Your task to perform on an android device: turn pop-ups on in chrome Image 0: 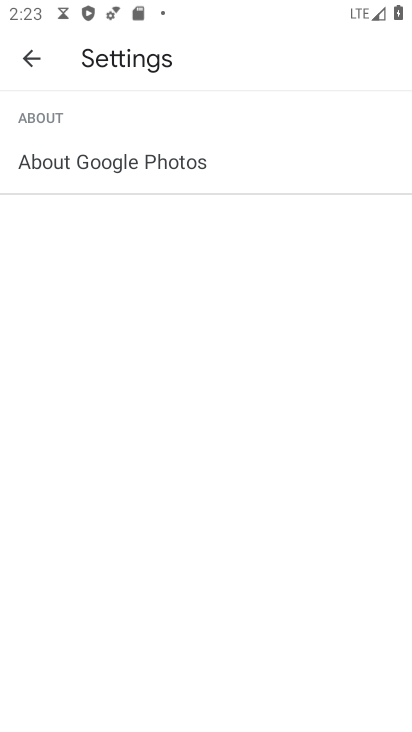
Step 0: press home button
Your task to perform on an android device: turn pop-ups on in chrome Image 1: 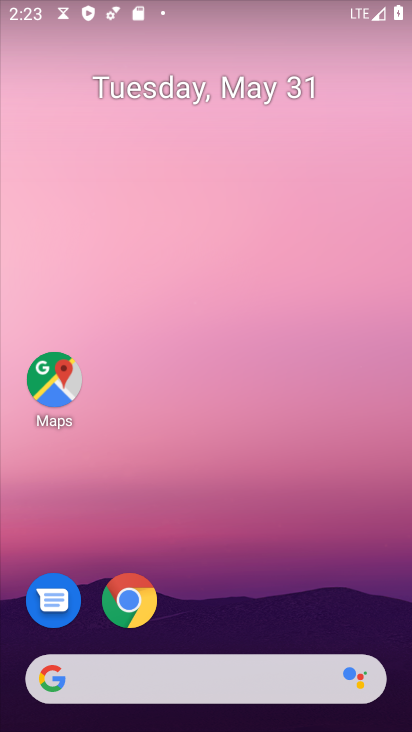
Step 1: click (125, 594)
Your task to perform on an android device: turn pop-ups on in chrome Image 2: 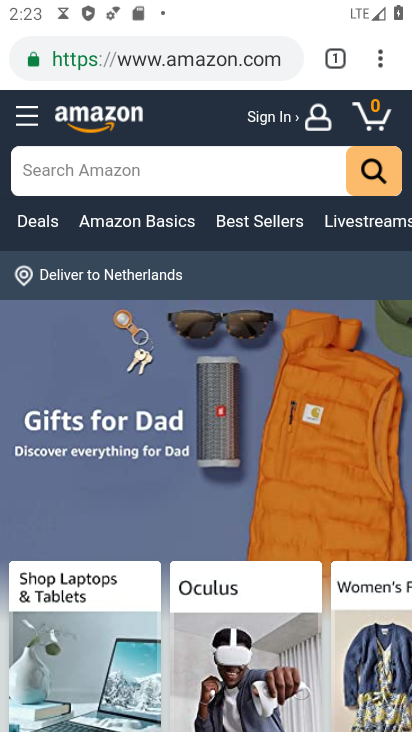
Step 2: click (380, 50)
Your task to perform on an android device: turn pop-ups on in chrome Image 3: 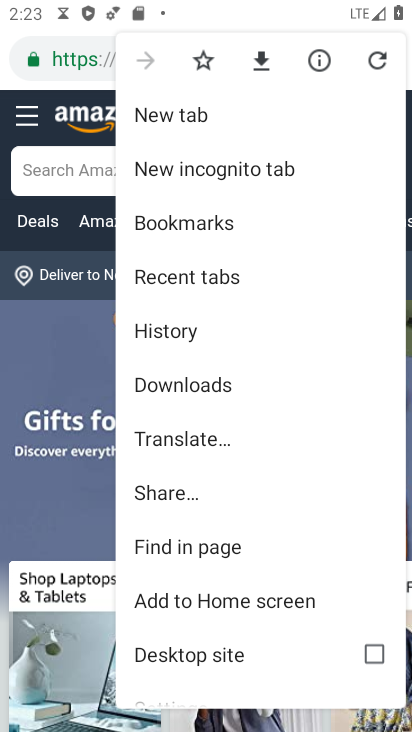
Step 3: drag from (259, 599) to (286, 70)
Your task to perform on an android device: turn pop-ups on in chrome Image 4: 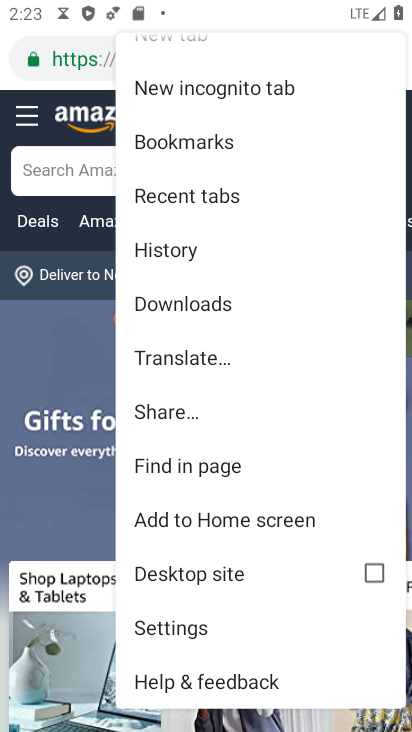
Step 4: click (216, 619)
Your task to perform on an android device: turn pop-ups on in chrome Image 5: 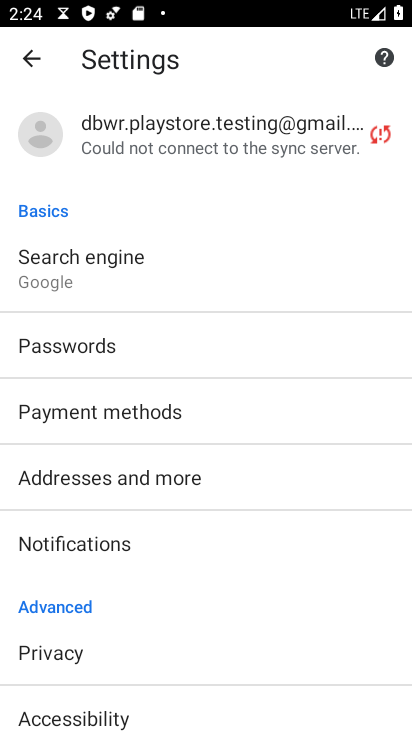
Step 5: drag from (150, 674) to (170, 115)
Your task to perform on an android device: turn pop-ups on in chrome Image 6: 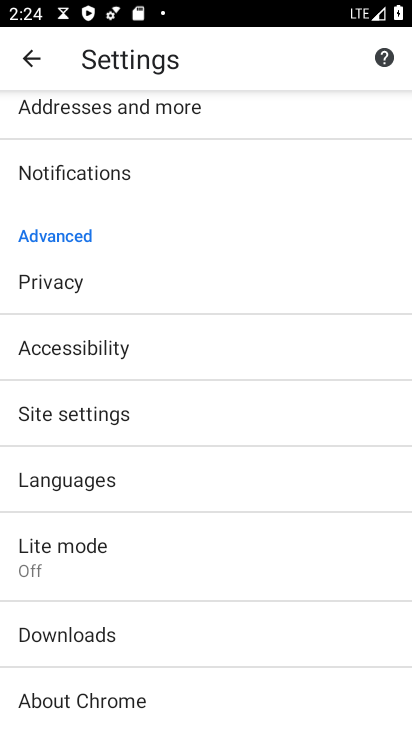
Step 6: click (154, 417)
Your task to perform on an android device: turn pop-ups on in chrome Image 7: 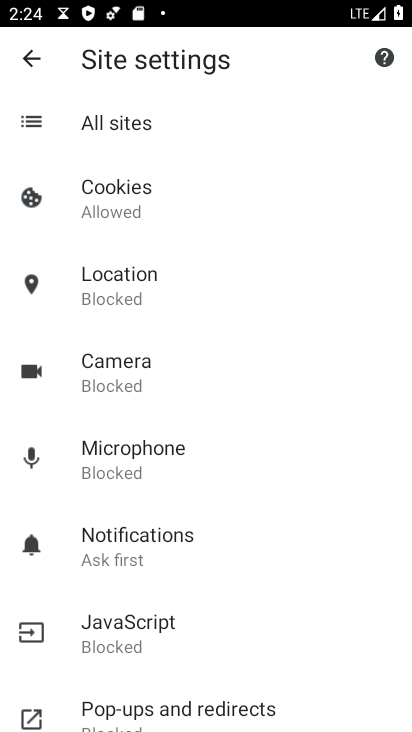
Step 7: click (281, 700)
Your task to perform on an android device: turn pop-ups on in chrome Image 8: 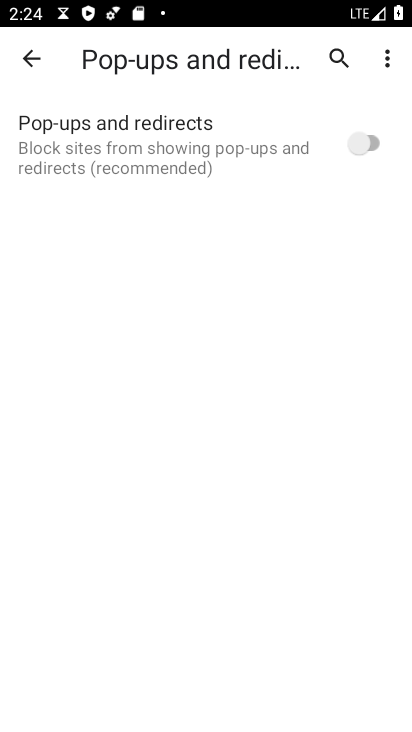
Step 8: click (361, 135)
Your task to perform on an android device: turn pop-ups on in chrome Image 9: 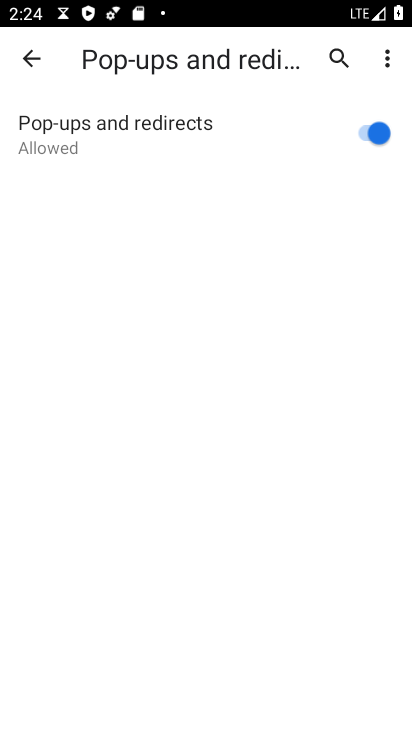
Step 9: task complete